Your task to perform on an android device: Go to privacy settings Image 0: 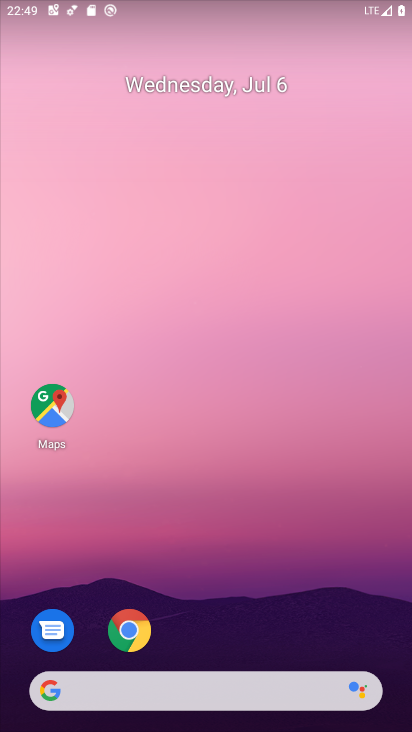
Step 0: drag from (162, 634) to (201, 94)
Your task to perform on an android device: Go to privacy settings Image 1: 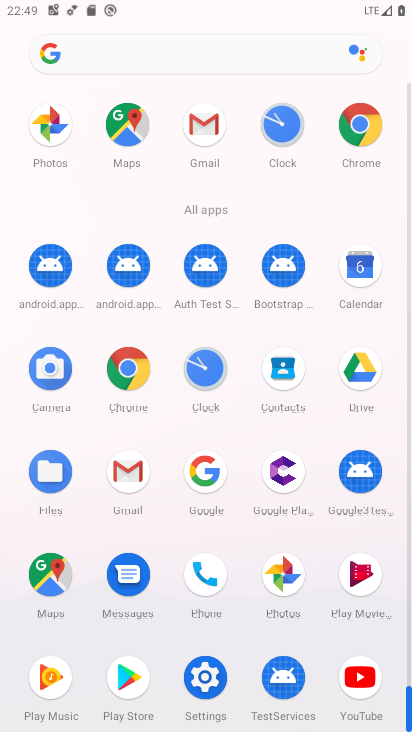
Step 1: click (195, 672)
Your task to perform on an android device: Go to privacy settings Image 2: 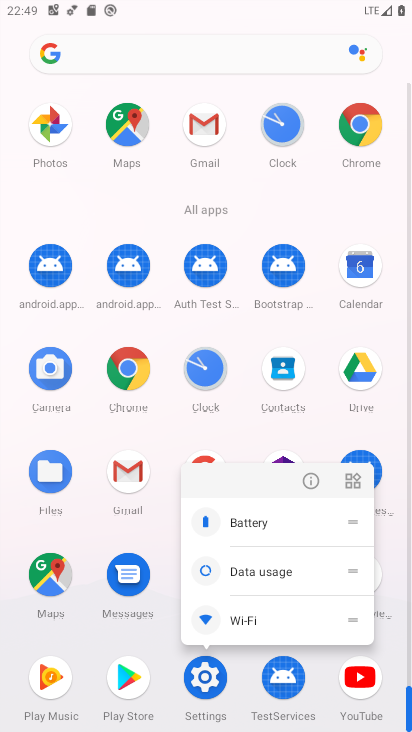
Step 2: click (312, 483)
Your task to perform on an android device: Go to privacy settings Image 3: 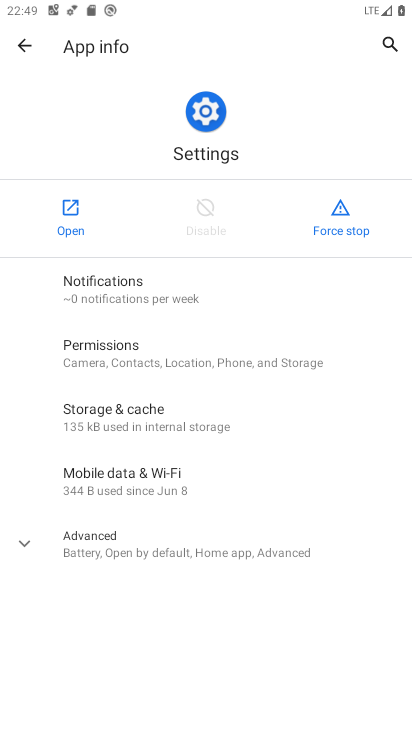
Step 3: click (59, 209)
Your task to perform on an android device: Go to privacy settings Image 4: 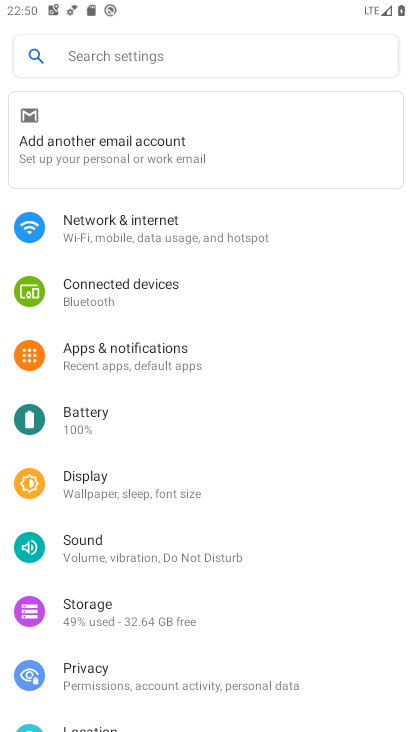
Step 4: drag from (195, 584) to (303, 90)
Your task to perform on an android device: Go to privacy settings Image 5: 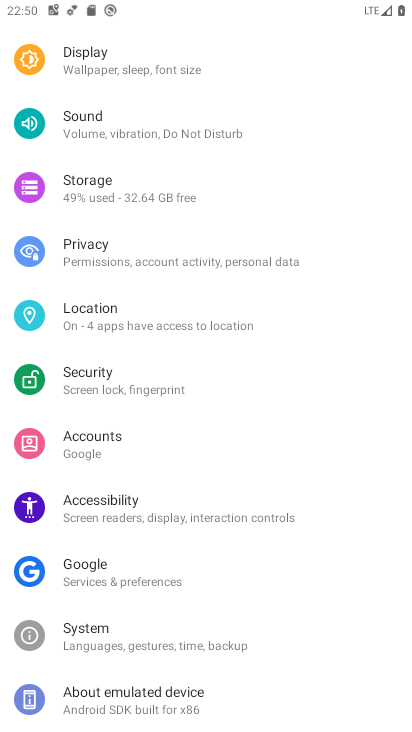
Step 5: click (91, 250)
Your task to perform on an android device: Go to privacy settings Image 6: 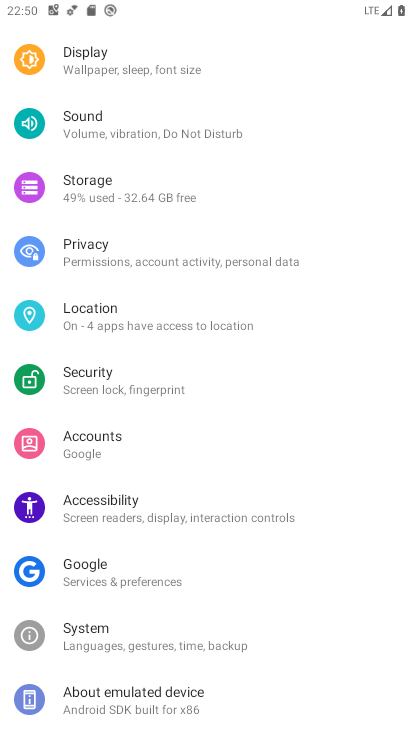
Step 6: click (91, 250)
Your task to perform on an android device: Go to privacy settings Image 7: 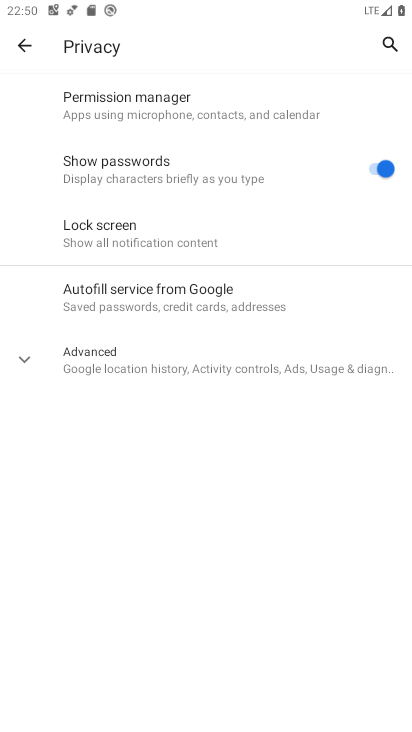
Step 7: drag from (202, 94) to (155, 439)
Your task to perform on an android device: Go to privacy settings Image 8: 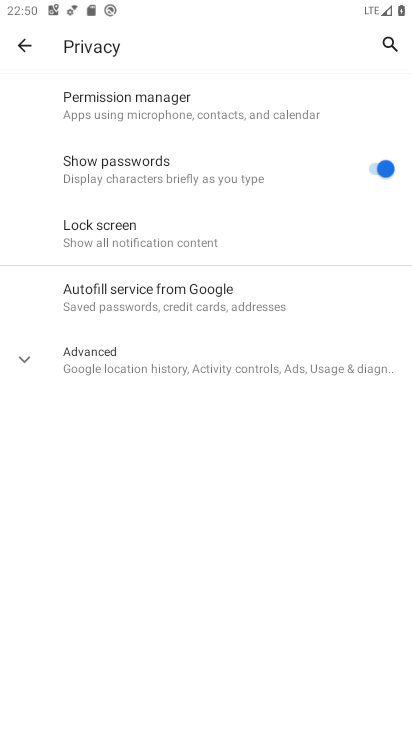
Step 8: click (114, 359)
Your task to perform on an android device: Go to privacy settings Image 9: 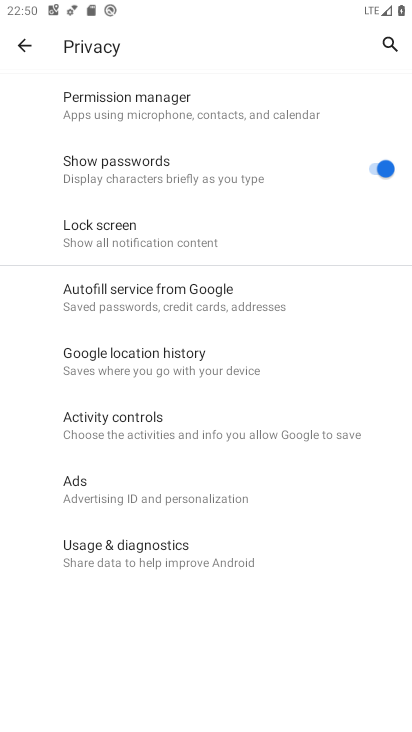
Step 9: task complete